Your task to perform on an android device: turn on notifications settings in the gmail app Image 0: 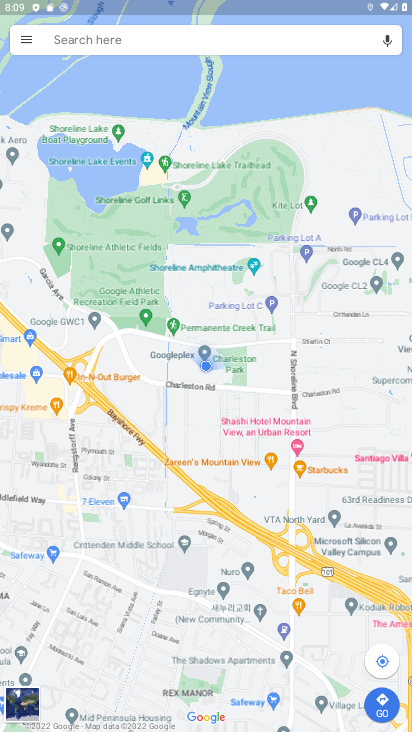
Step 0: press home button
Your task to perform on an android device: turn on notifications settings in the gmail app Image 1: 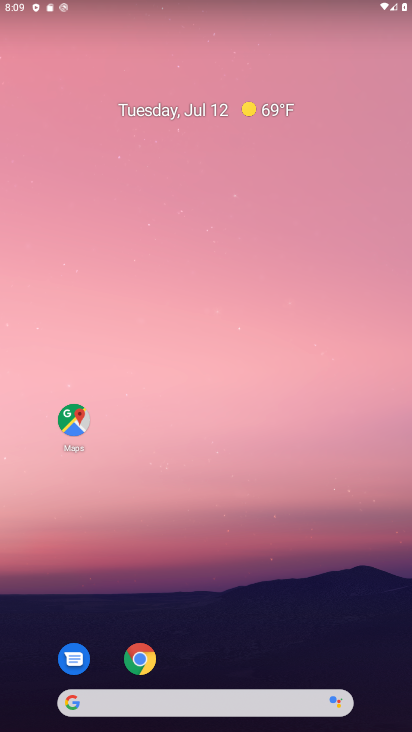
Step 1: drag from (244, 569) to (238, 160)
Your task to perform on an android device: turn on notifications settings in the gmail app Image 2: 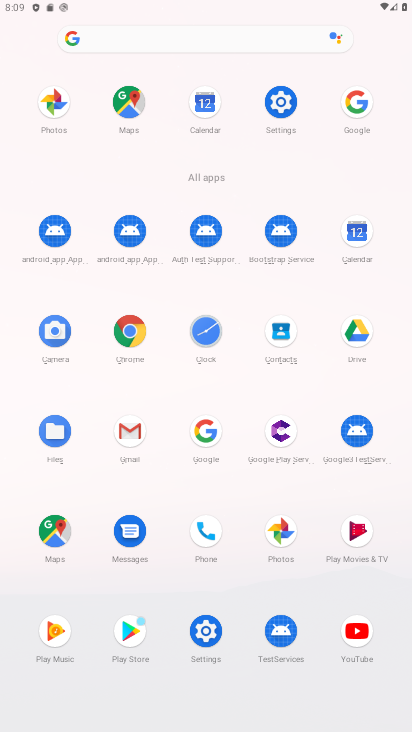
Step 2: click (128, 429)
Your task to perform on an android device: turn on notifications settings in the gmail app Image 3: 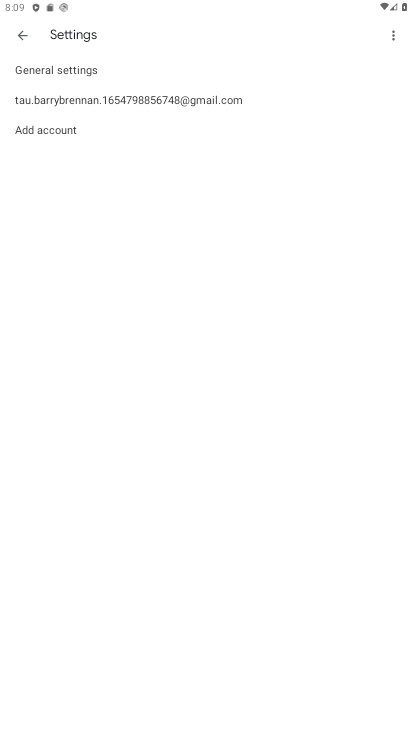
Step 3: click (67, 93)
Your task to perform on an android device: turn on notifications settings in the gmail app Image 4: 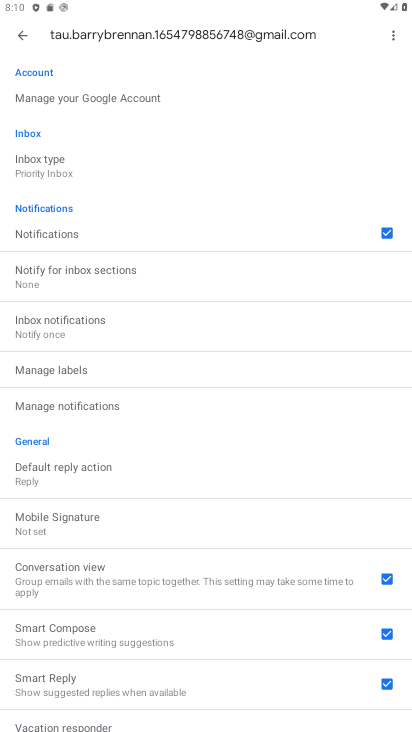
Step 4: task complete